Your task to perform on an android device: Clear the shopping cart on ebay.com. Search for bose soundsport free on ebay.com, select the first entry, add it to the cart, then select checkout. Image 0: 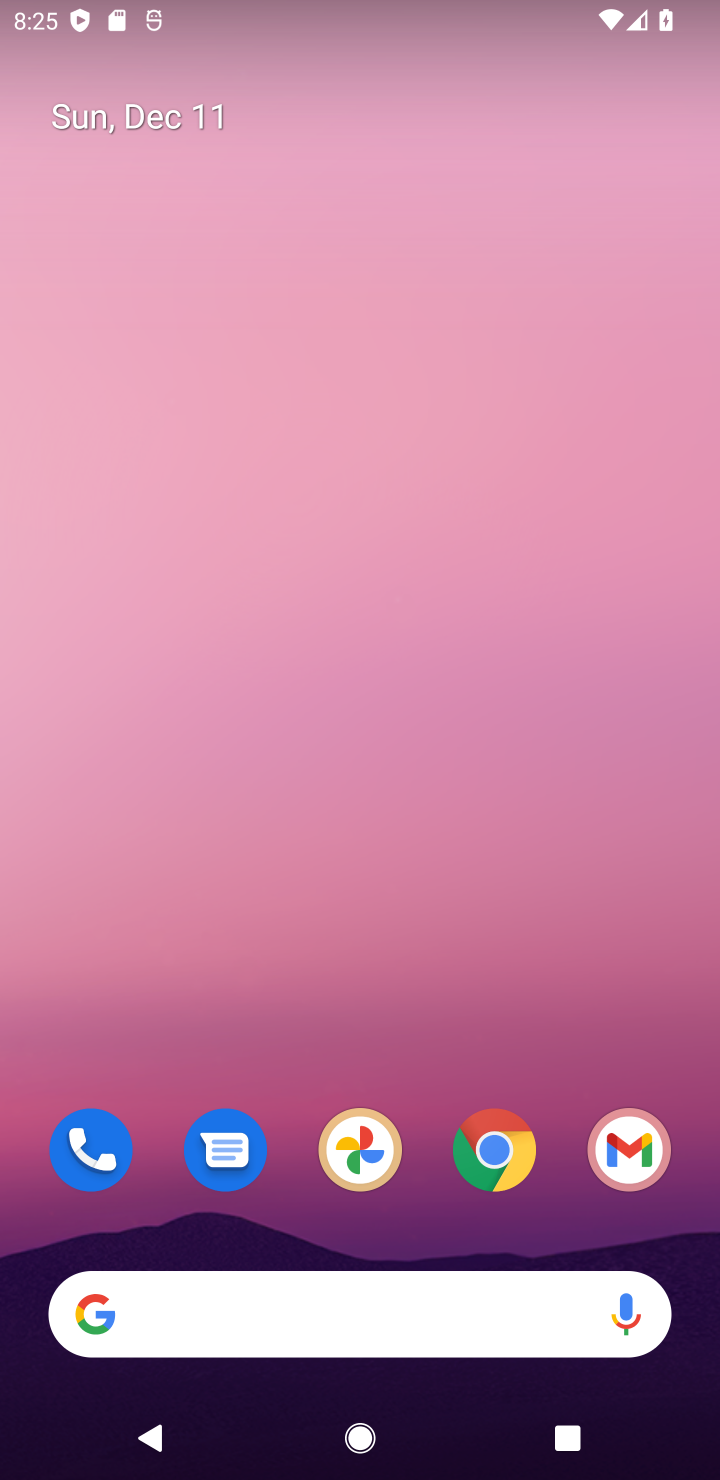
Step 0: click (493, 1148)
Your task to perform on an android device: Clear the shopping cart on ebay.com. Search for bose soundsport free on ebay.com, select the first entry, add it to the cart, then select checkout. Image 1: 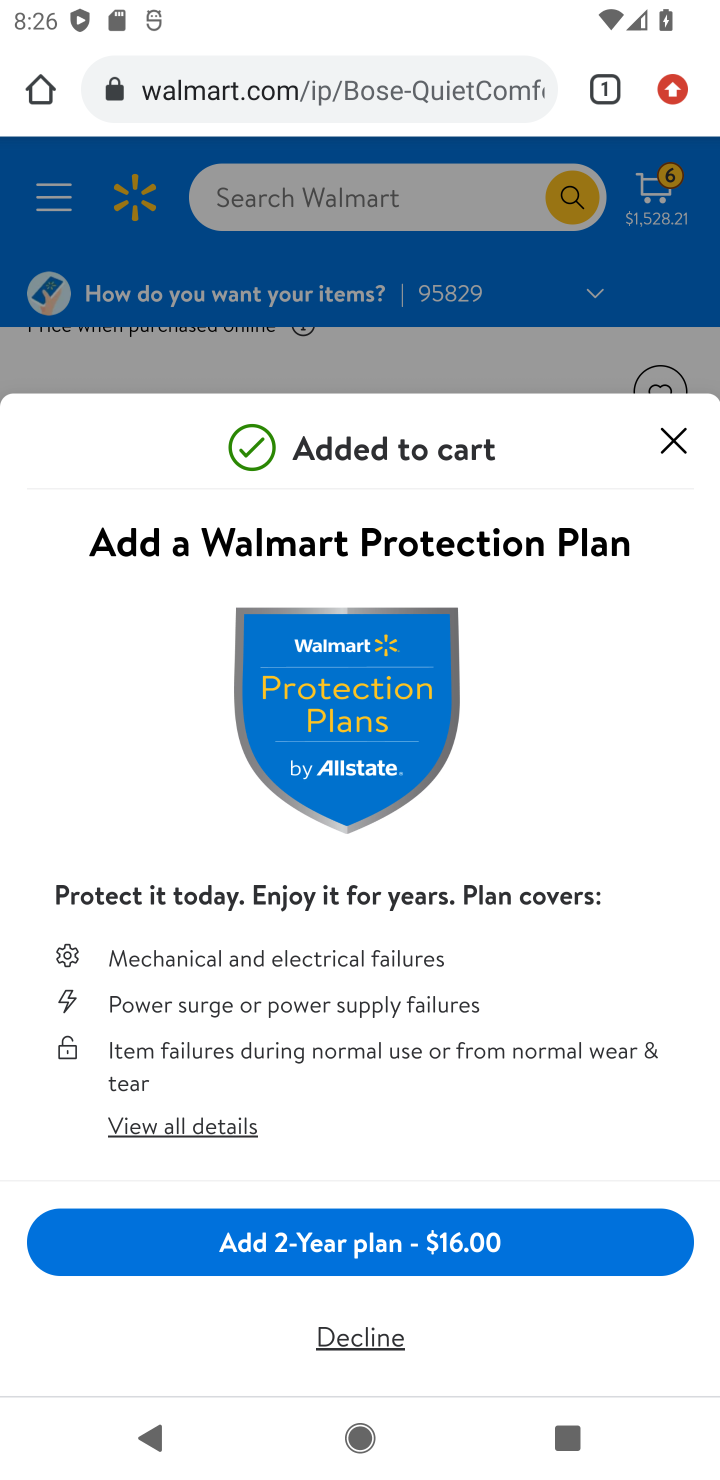
Step 1: click (448, 96)
Your task to perform on an android device: Clear the shopping cart on ebay.com. Search for bose soundsport free on ebay.com, select the first entry, add it to the cart, then select checkout. Image 2: 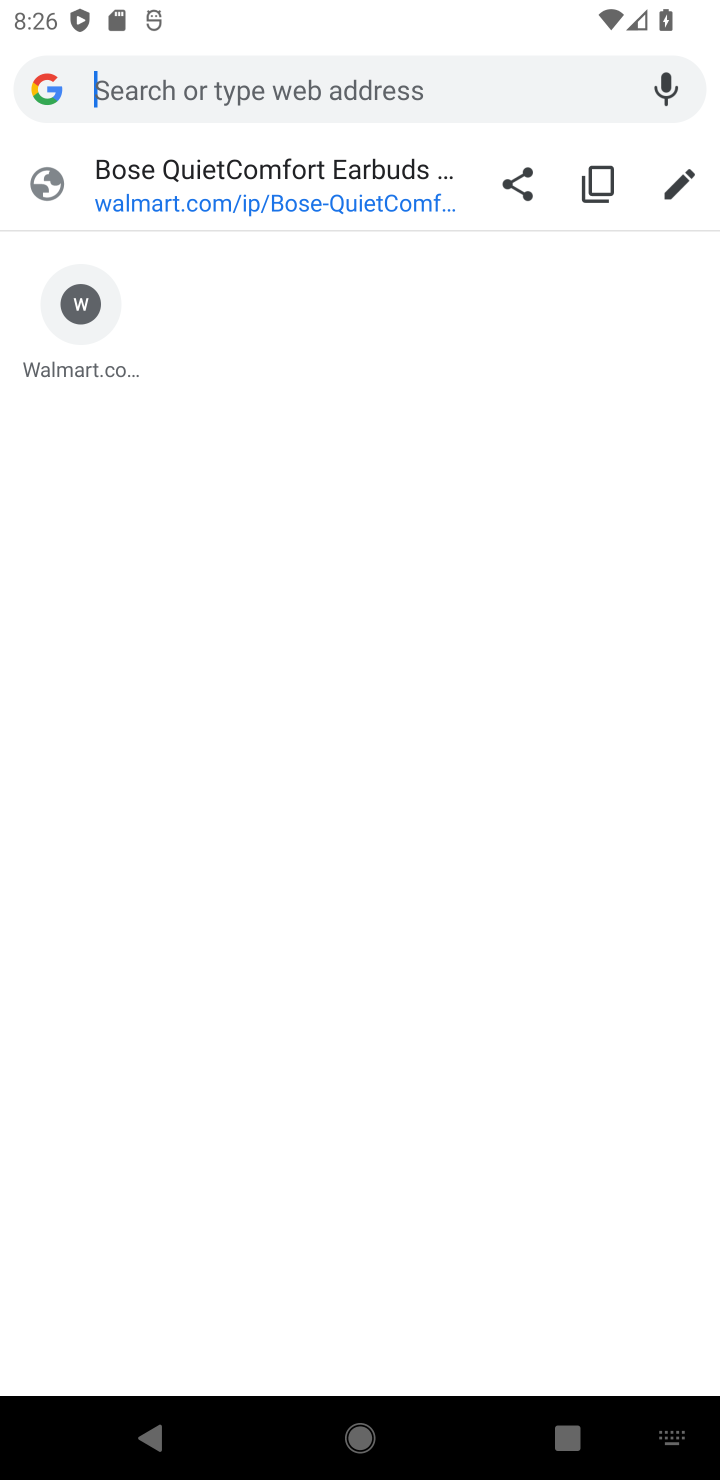
Step 2: type "ebay.com"
Your task to perform on an android device: Clear the shopping cart on ebay.com. Search for bose soundsport free on ebay.com, select the first entry, add it to the cart, then select checkout. Image 3: 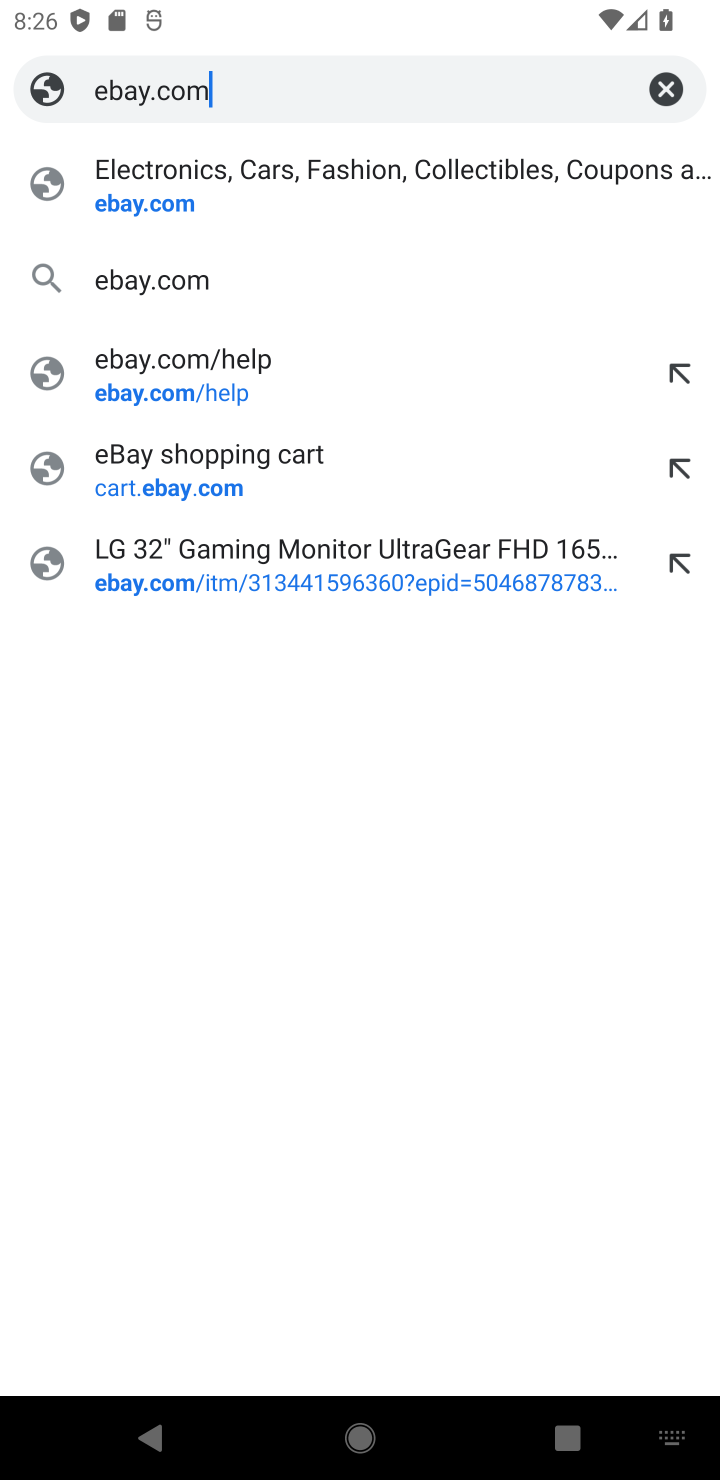
Step 3: click (181, 281)
Your task to perform on an android device: Clear the shopping cart on ebay.com. Search for bose soundsport free on ebay.com, select the first entry, add it to the cart, then select checkout. Image 4: 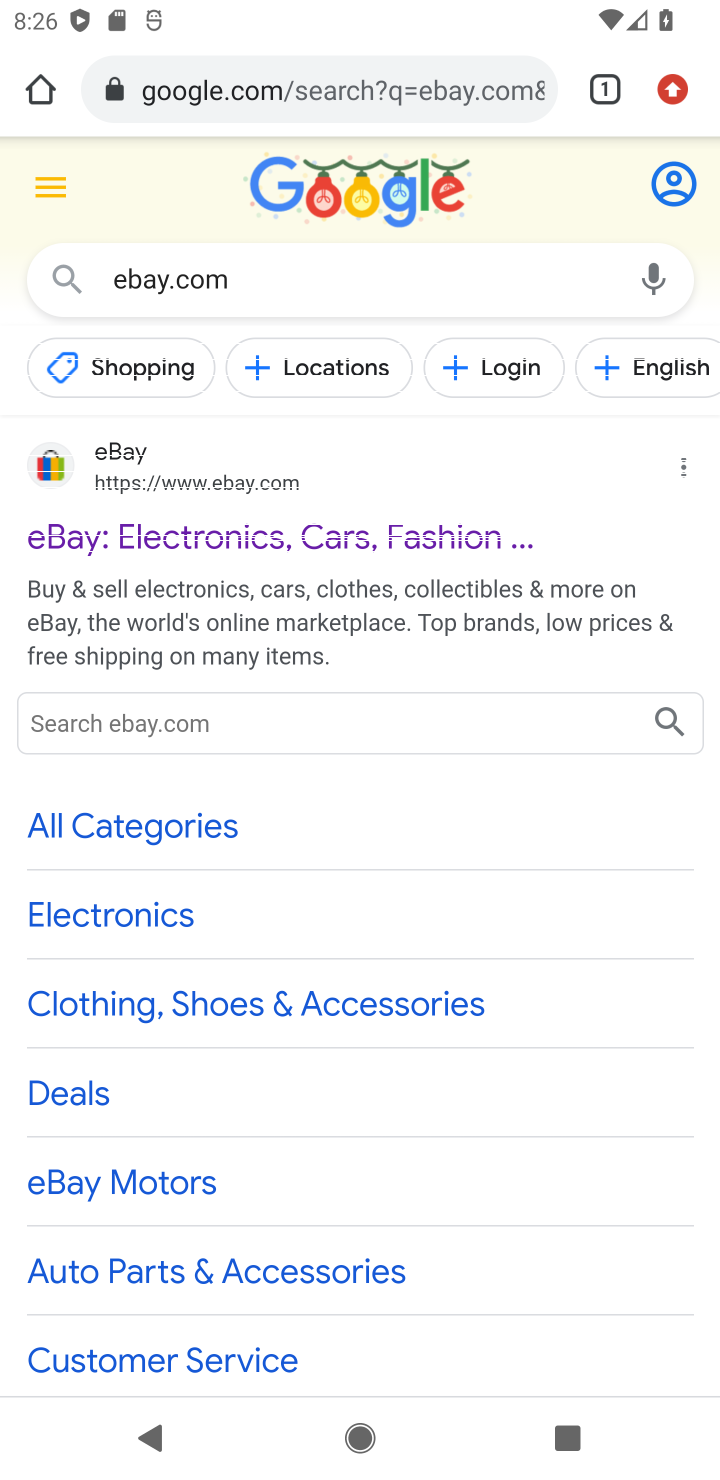
Step 4: click (180, 541)
Your task to perform on an android device: Clear the shopping cart on ebay.com. Search for bose soundsport free on ebay.com, select the first entry, add it to the cart, then select checkout. Image 5: 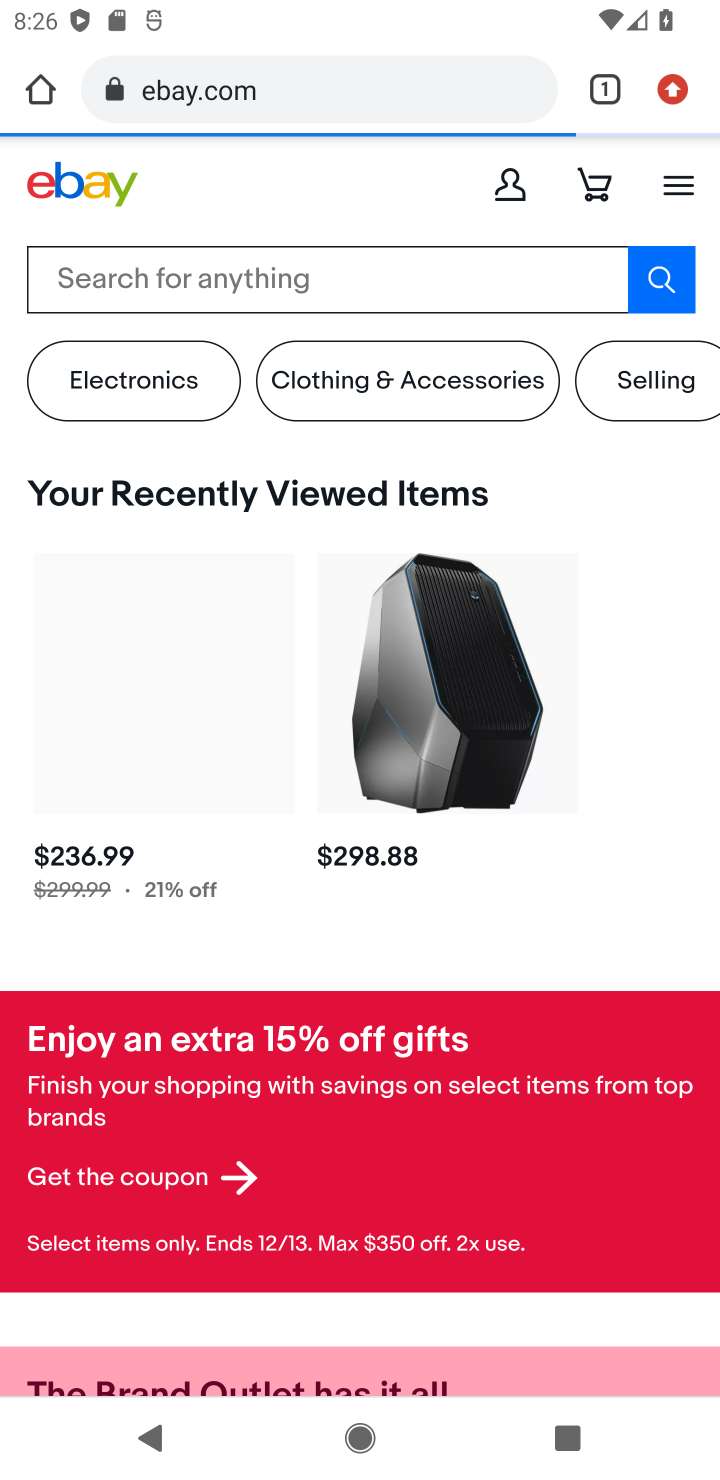
Step 5: click (589, 190)
Your task to perform on an android device: Clear the shopping cart on ebay.com. Search for bose soundsport free on ebay.com, select the first entry, add it to the cart, then select checkout. Image 6: 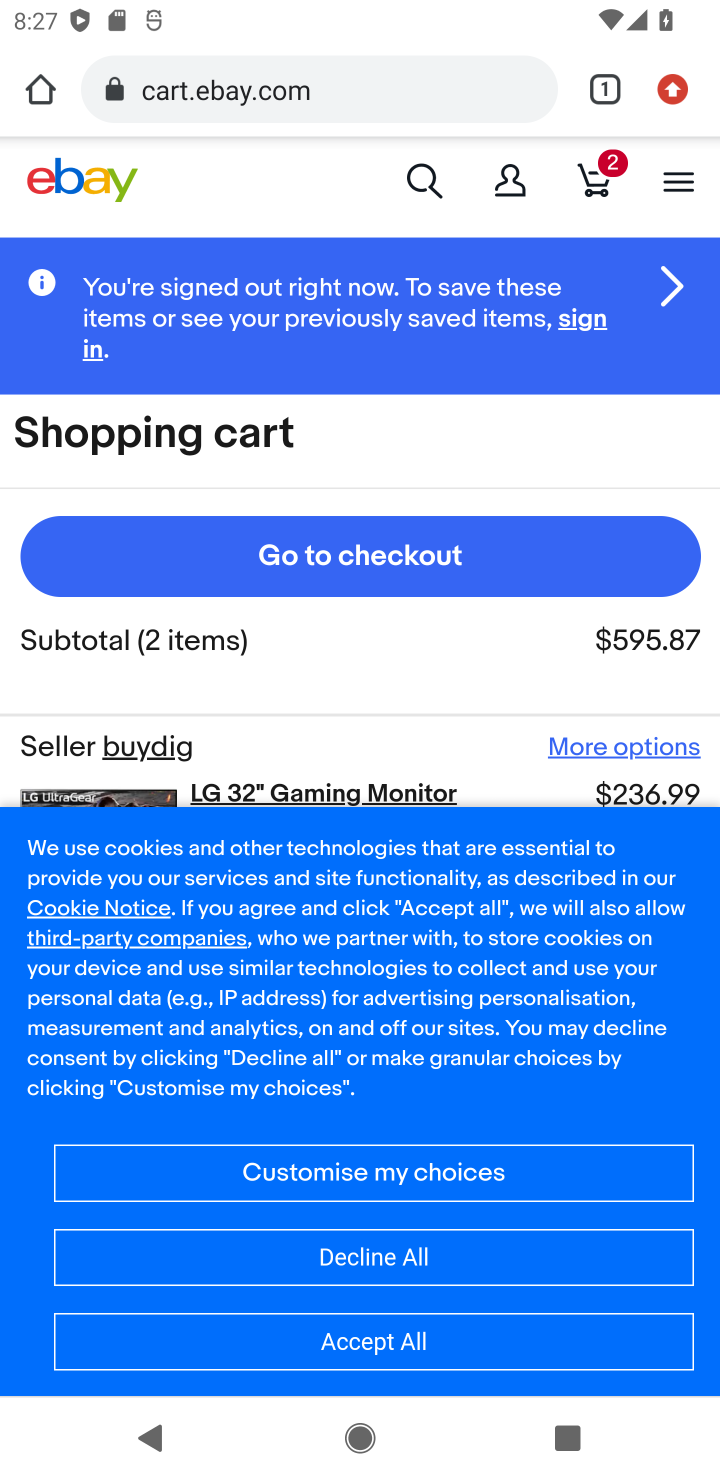
Step 6: click (390, 1337)
Your task to perform on an android device: Clear the shopping cart on ebay.com. Search for bose soundsport free on ebay.com, select the first entry, add it to the cart, then select checkout. Image 7: 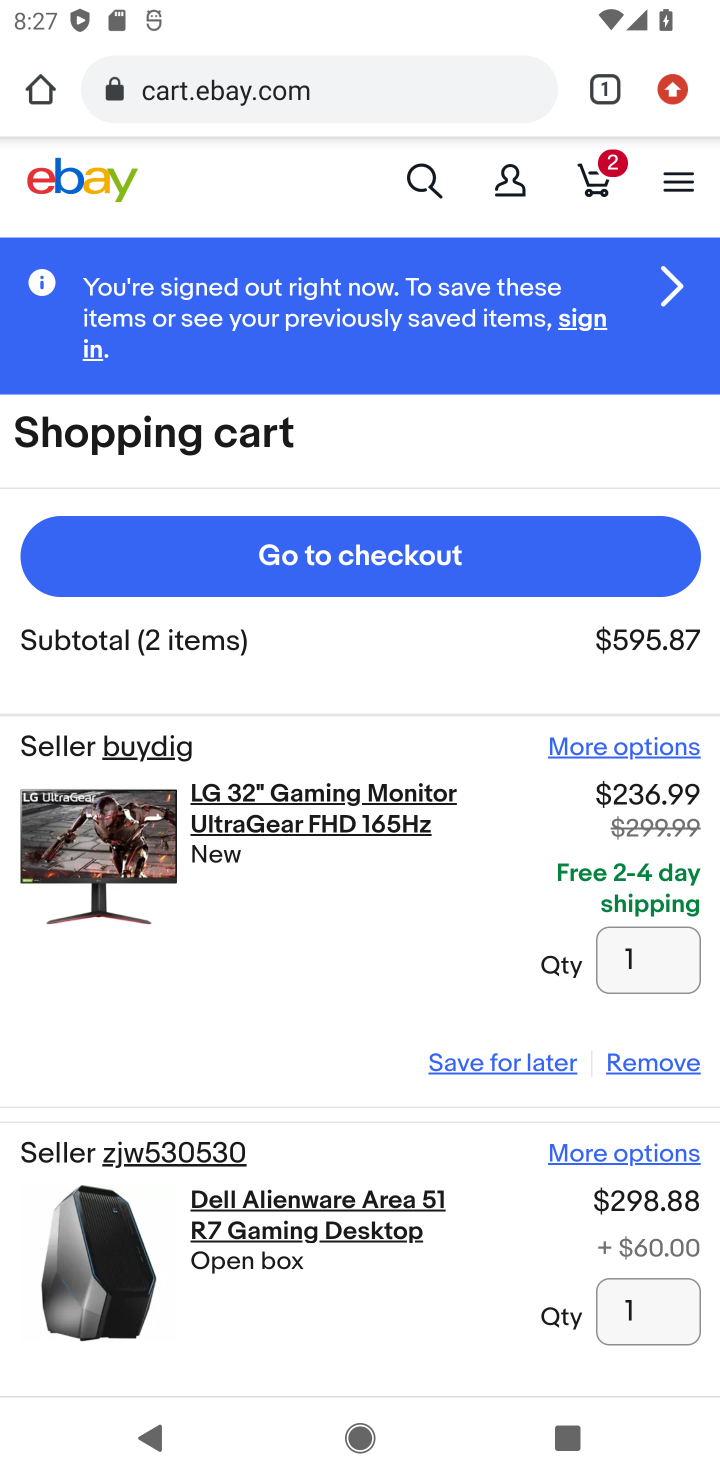
Step 7: click (626, 1065)
Your task to perform on an android device: Clear the shopping cart on ebay.com. Search for bose soundsport free on ebay.com, select the first entry, add it to the cart, then select checkout. Image 8: 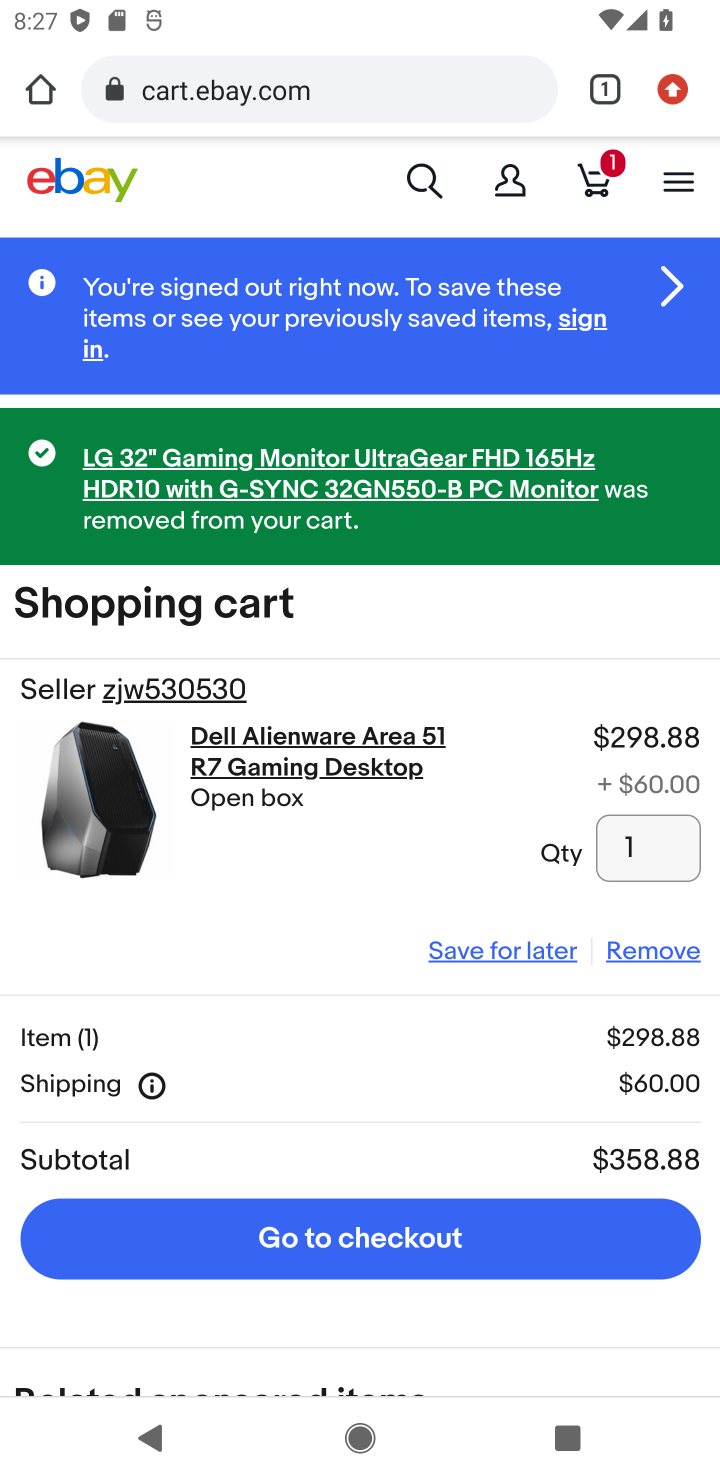
Step 8: click (667, 951)
Your task to perform on an android device: Clear the shopping cart on ebay.com. Search for bose soundsport free on ebay.com, select the first entry, add it to the cart, then select checkout. Image 9: 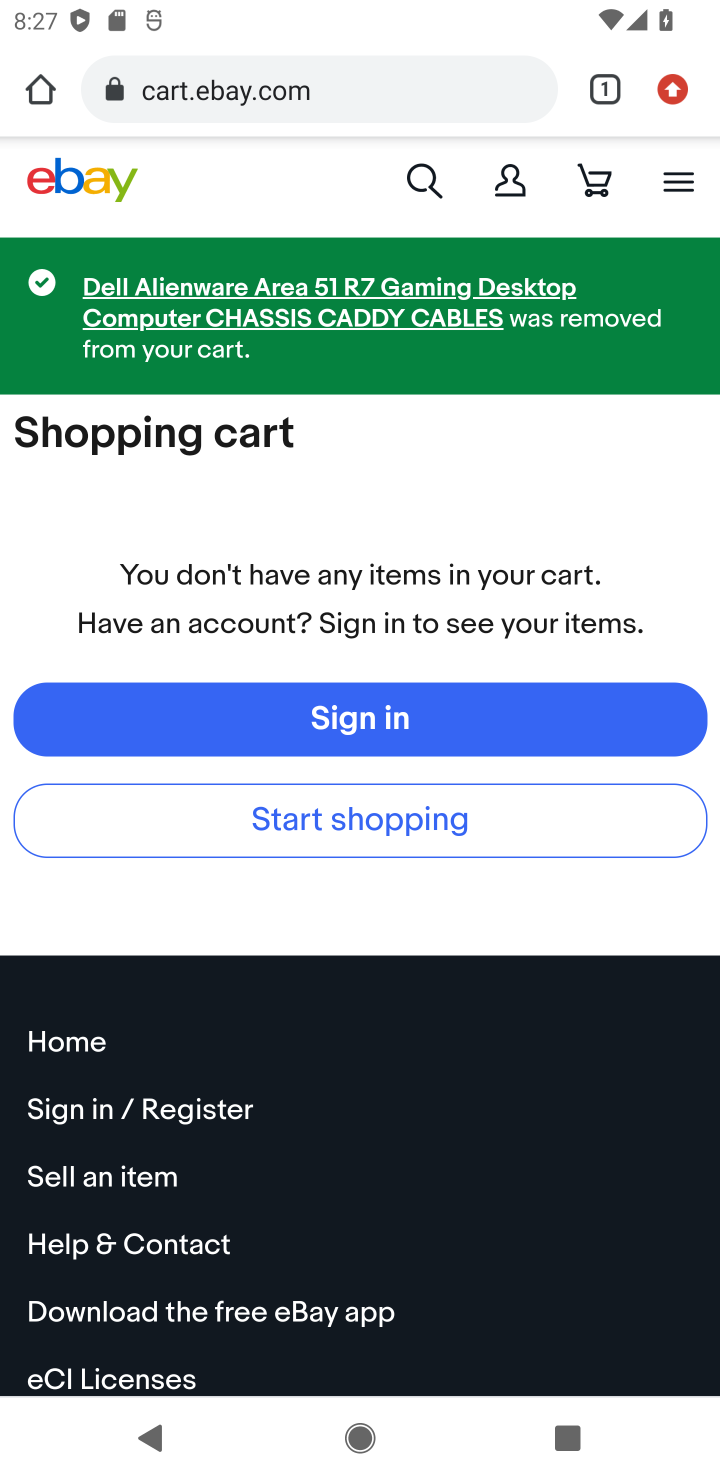
Step 9: click (418, 181)
Your task to perform on an android device: Clear the shopping cart on ebay.com. Search for bose soundsport free on ebay.com, select the first entry, add it to the cart, then select checkout. Image 10: 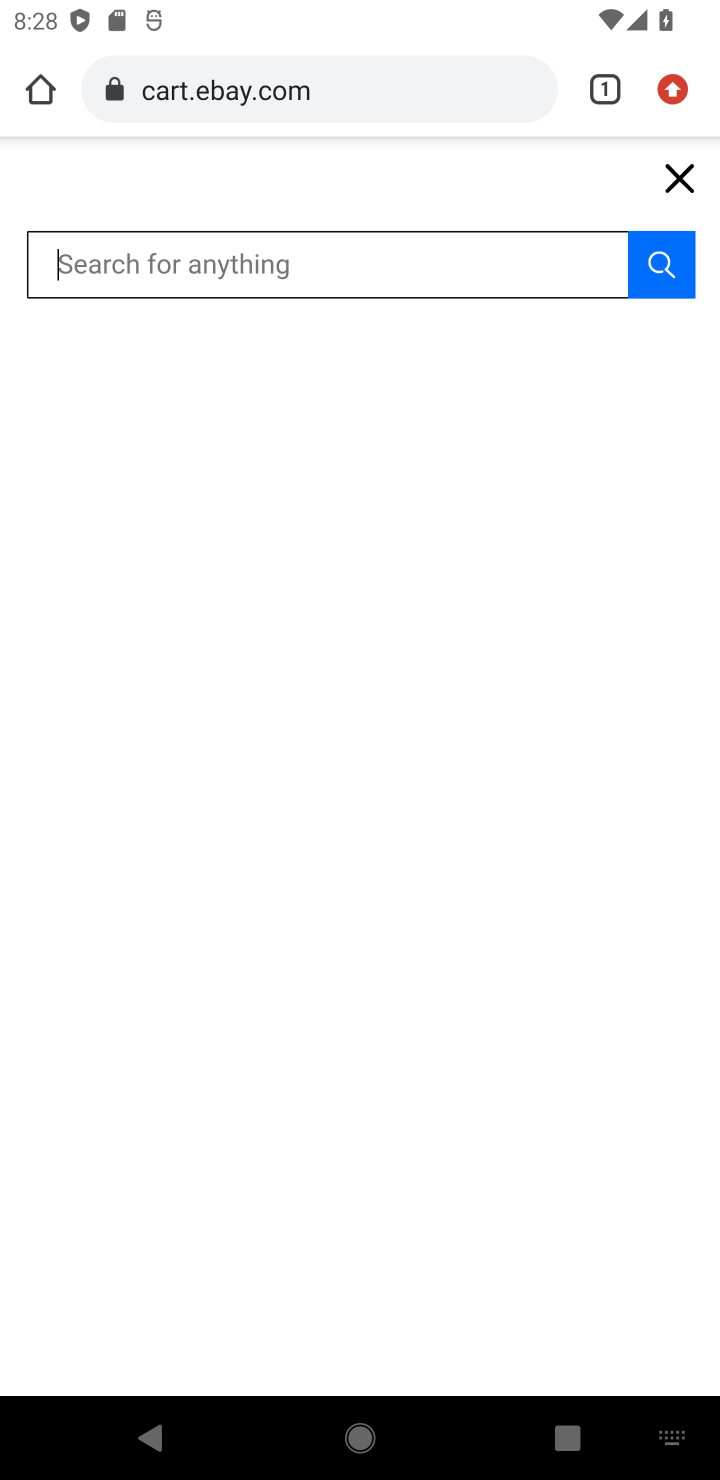
Step 10: type "bose soundsport free"
Your task to perform on an android device: Clear the shopping cart on ebay.com. Search for bose soundsport free on ebay.com, select the first entry, add it to the cart, then select checkout. Image 11: 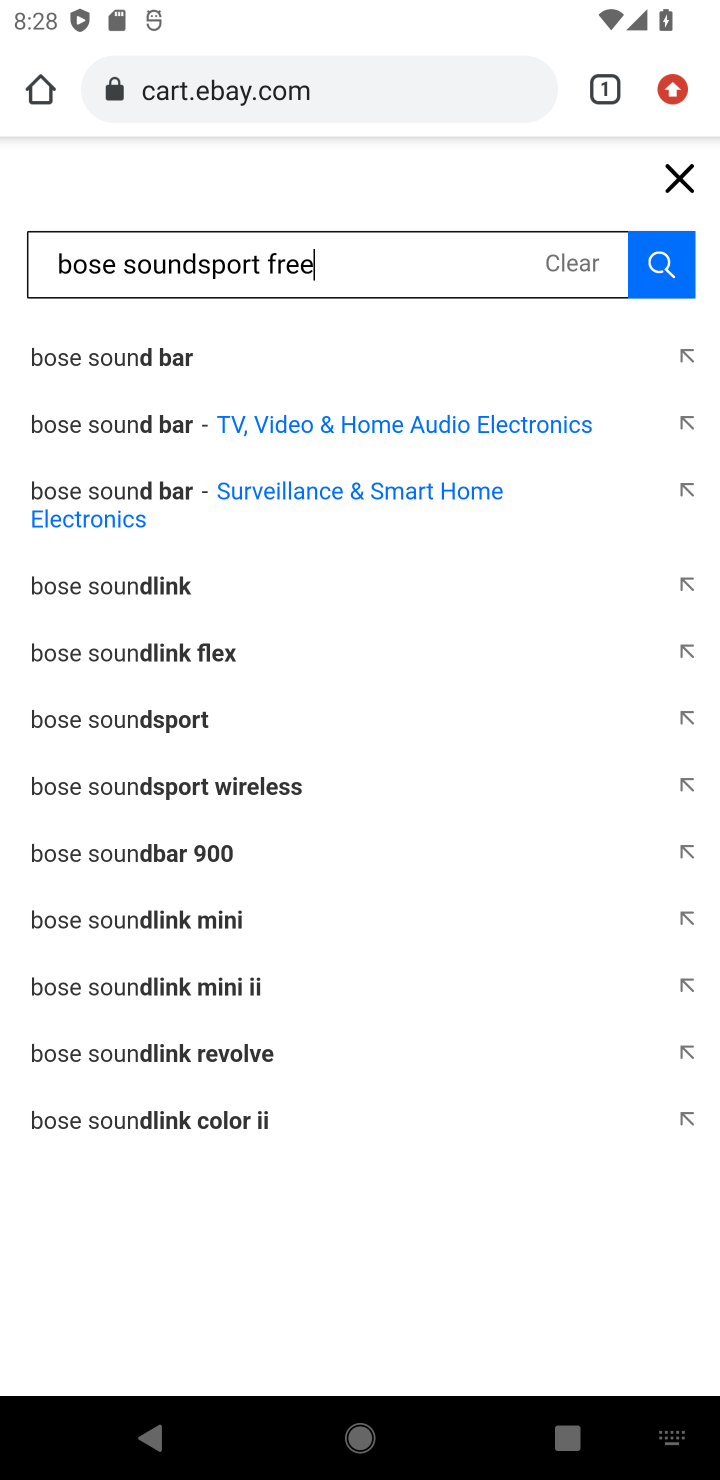
Step 11: click (660, 259)
Your task to perform on an android device: Clear the shopping cart on ebay.com. Search for bose soundsport free on ebay.com, select the first entry, add it to the cart, then select checkout. Image 12: 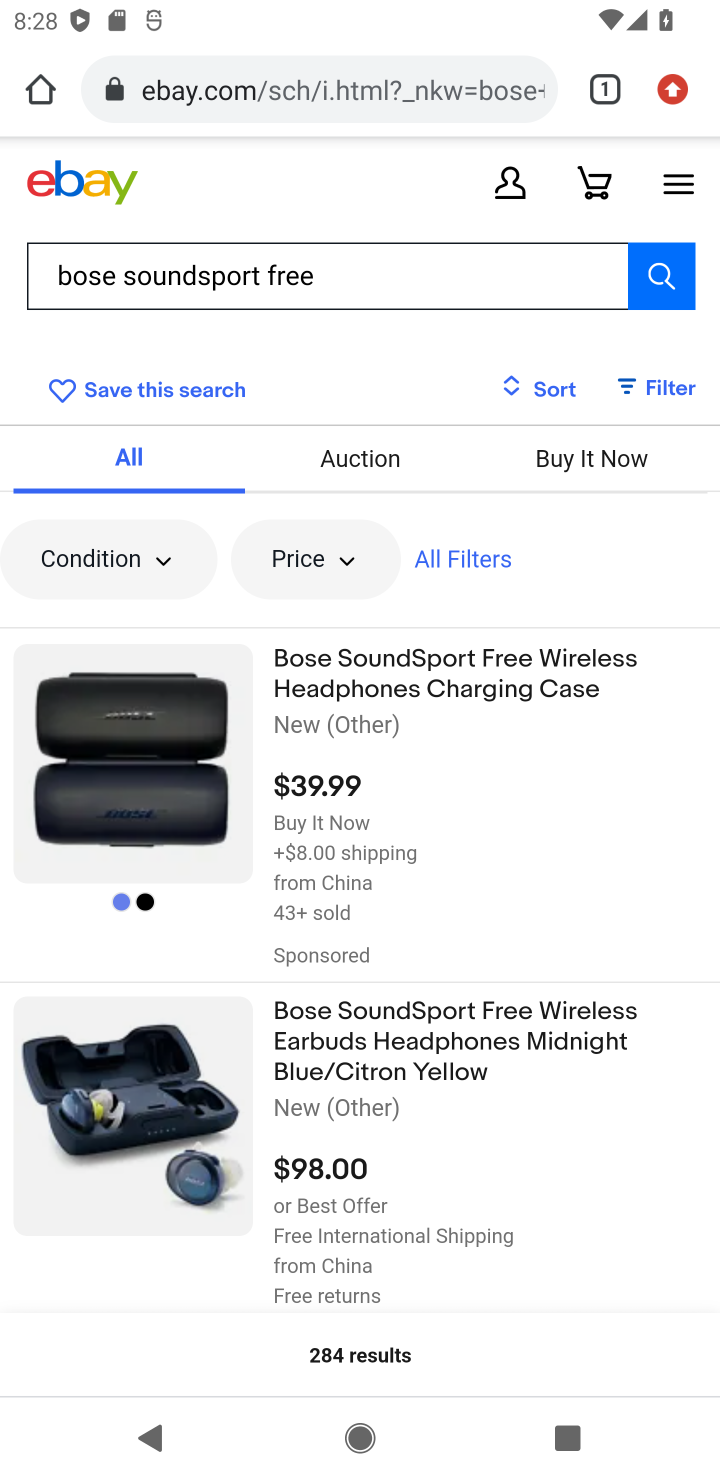
Step 12: click (547, 692)
Your task to perform on an android device: Clear the shopping cart on ebay.com. Search for bose soundsport free on ebay.com, select the first entry, add it to the cart, then select checkout. Image 13: 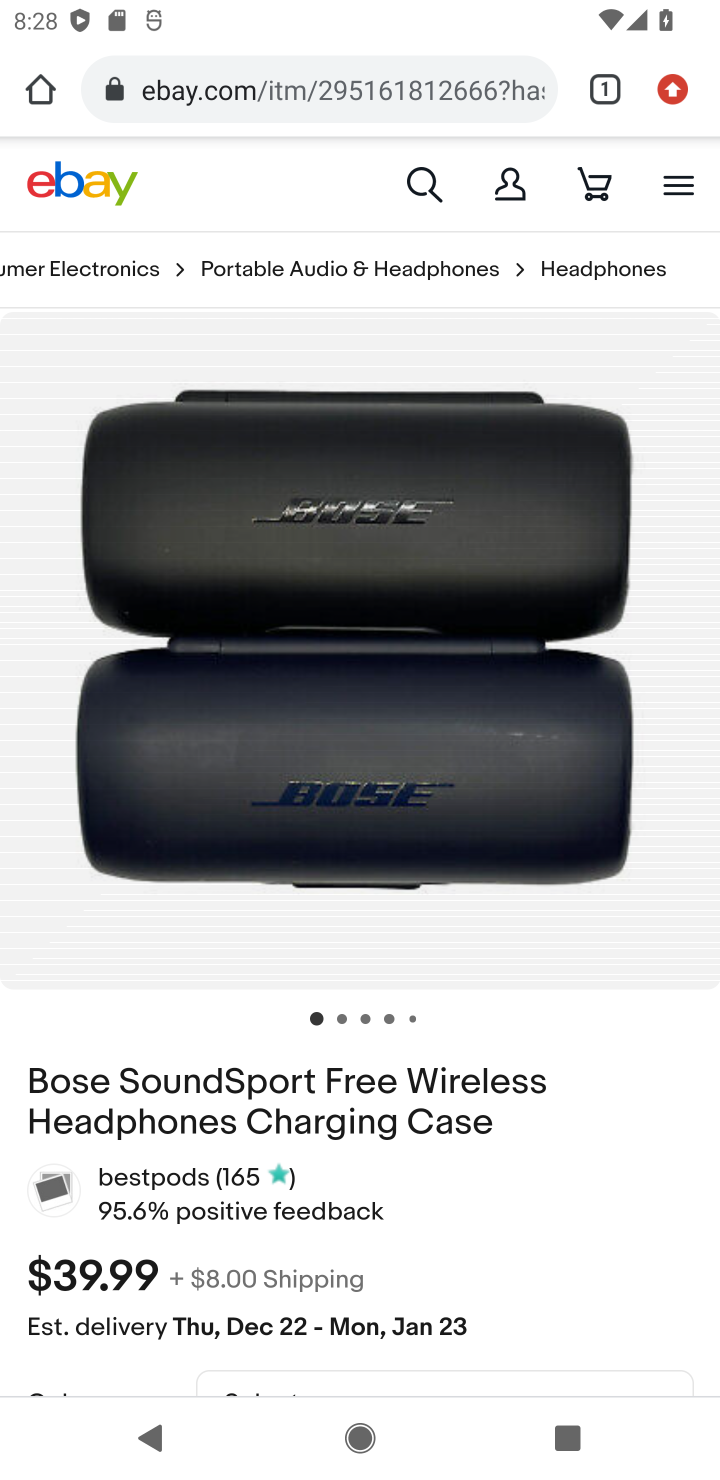
Step 13: drag from (512, 1205) to (545, 738)
Your task to perform on an android device: Clear the shopping cart on ebay.com. Search for bose soundsport free on ebay.com, select the first entry, add it to the cart, then select checkout. Image 14: 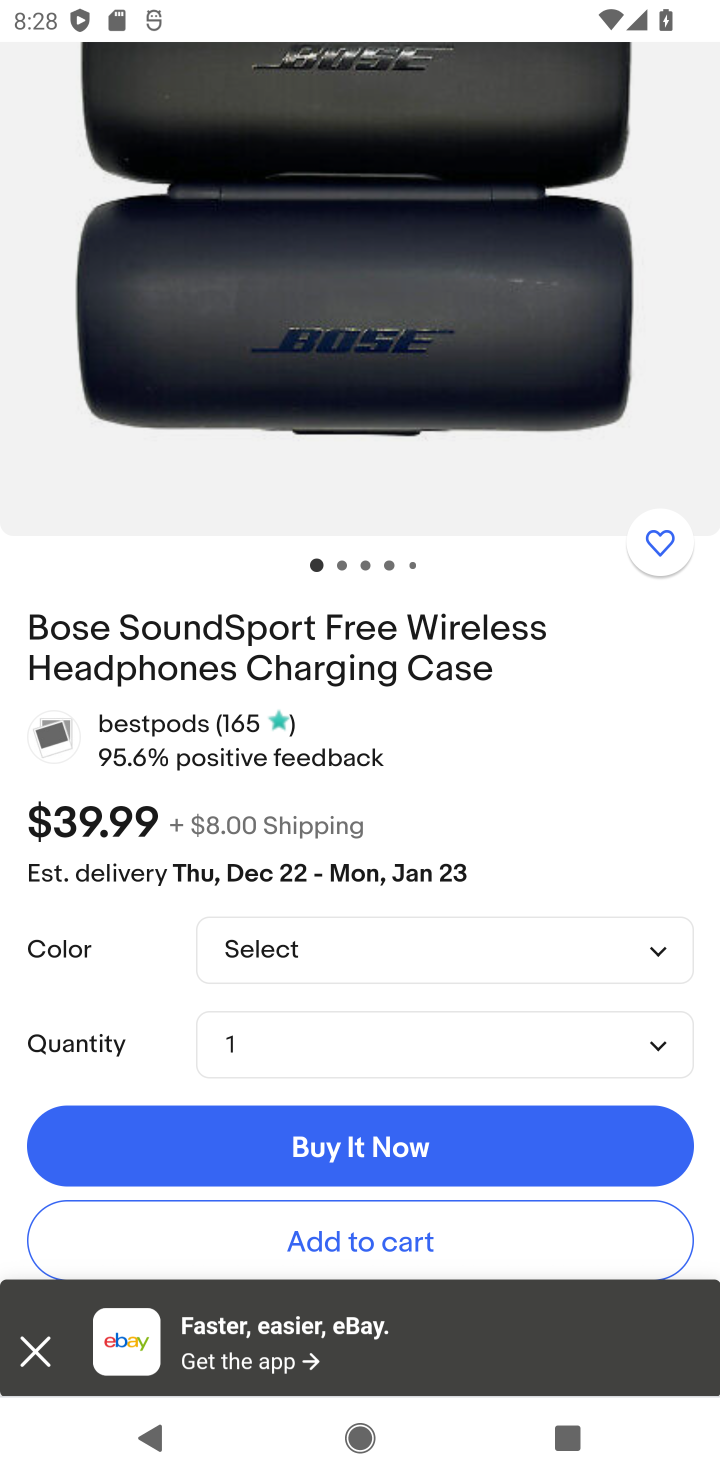
Step 14: click (384, 1235)
Your task to perform on an android device: Clear the shopping cart on ebay.com. Search for bose soundsport free on ebay.com, select the first entry, add it to the cart, then select checkout. Image 15: 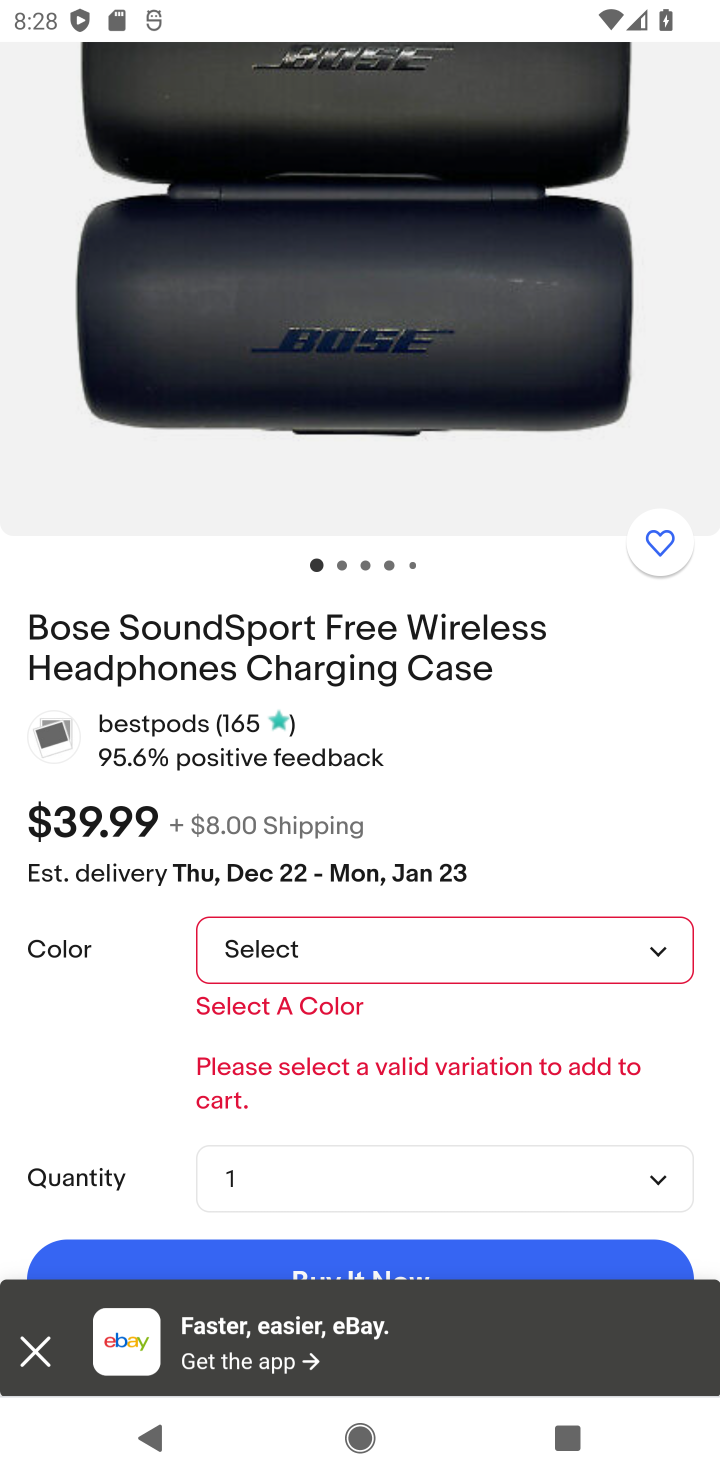
Step 15: click (655, 943)
Your task to perform on an android device: Clear the shopping cart on ebay.com. Search for bose soundsport free on ebay.com, select the first entry, add it to the cart, then select checkout. Image 16: 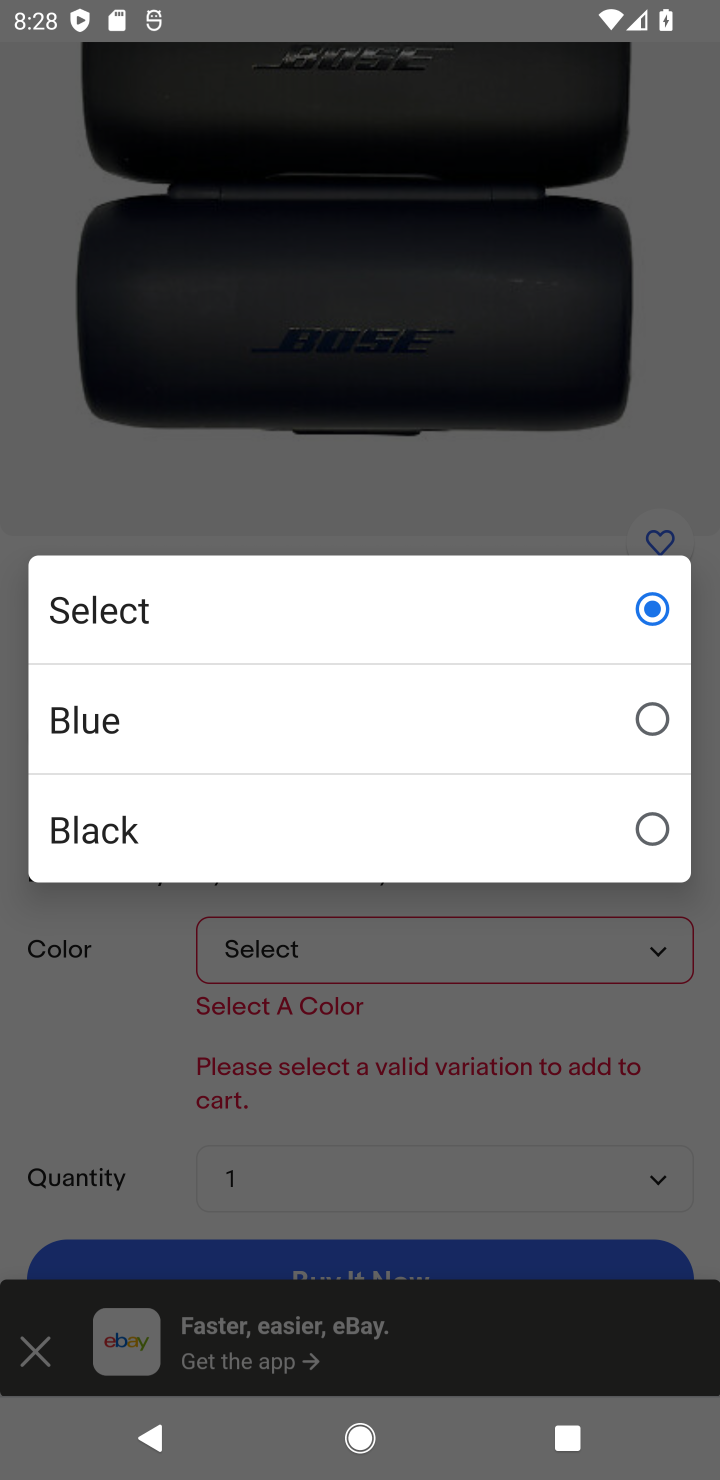
Step 16: click (641, 730)
Your task to perform on an android device: Clear the shopping cart on ebay.com. Search for bose soundsport free on ebay.com, select the first entry, add it to the cart, then select checkout. Image 17: 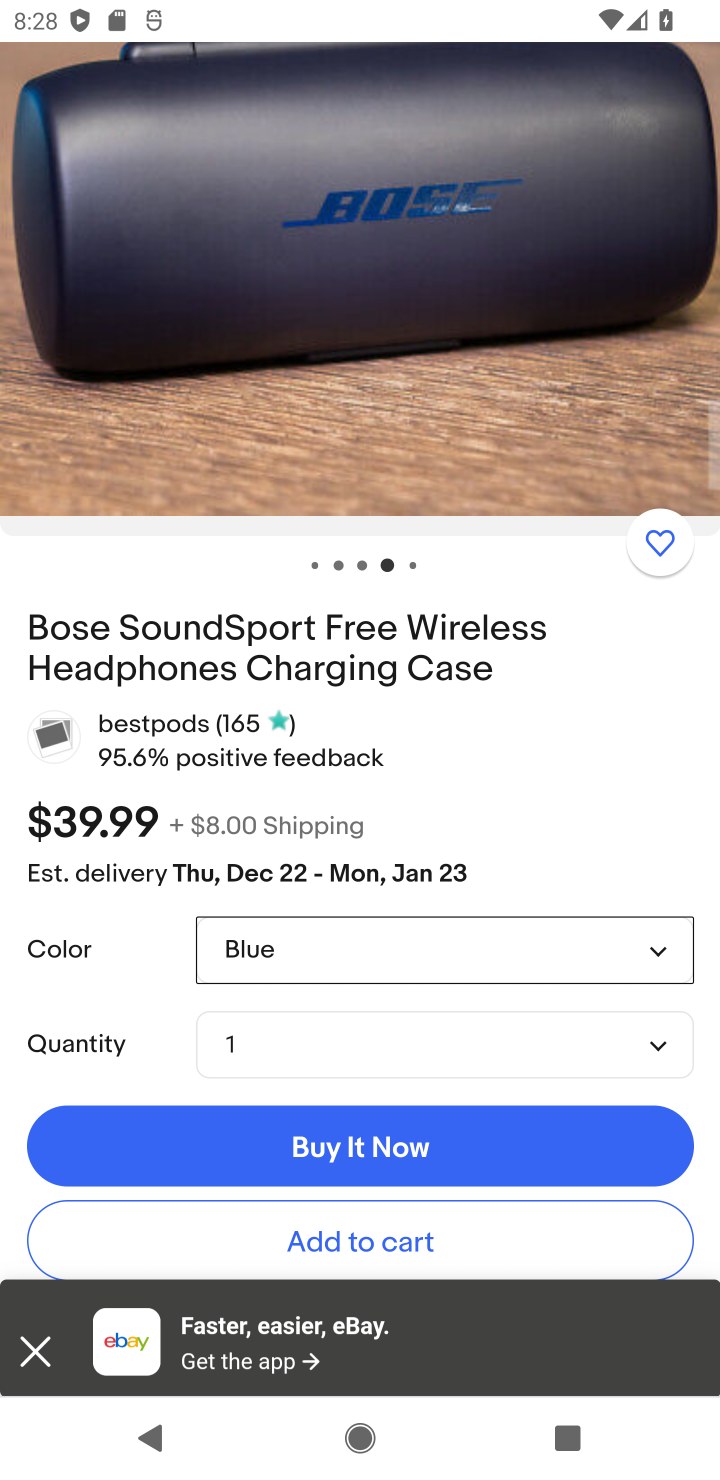
Step 17: click (427, 1238)
Your task to perform on an android device: Clear the shopping cart on ebay.com. Search for bose soundsport free on ebay.com, select the first entry, add it to the cart, then select checkout. Image 18: 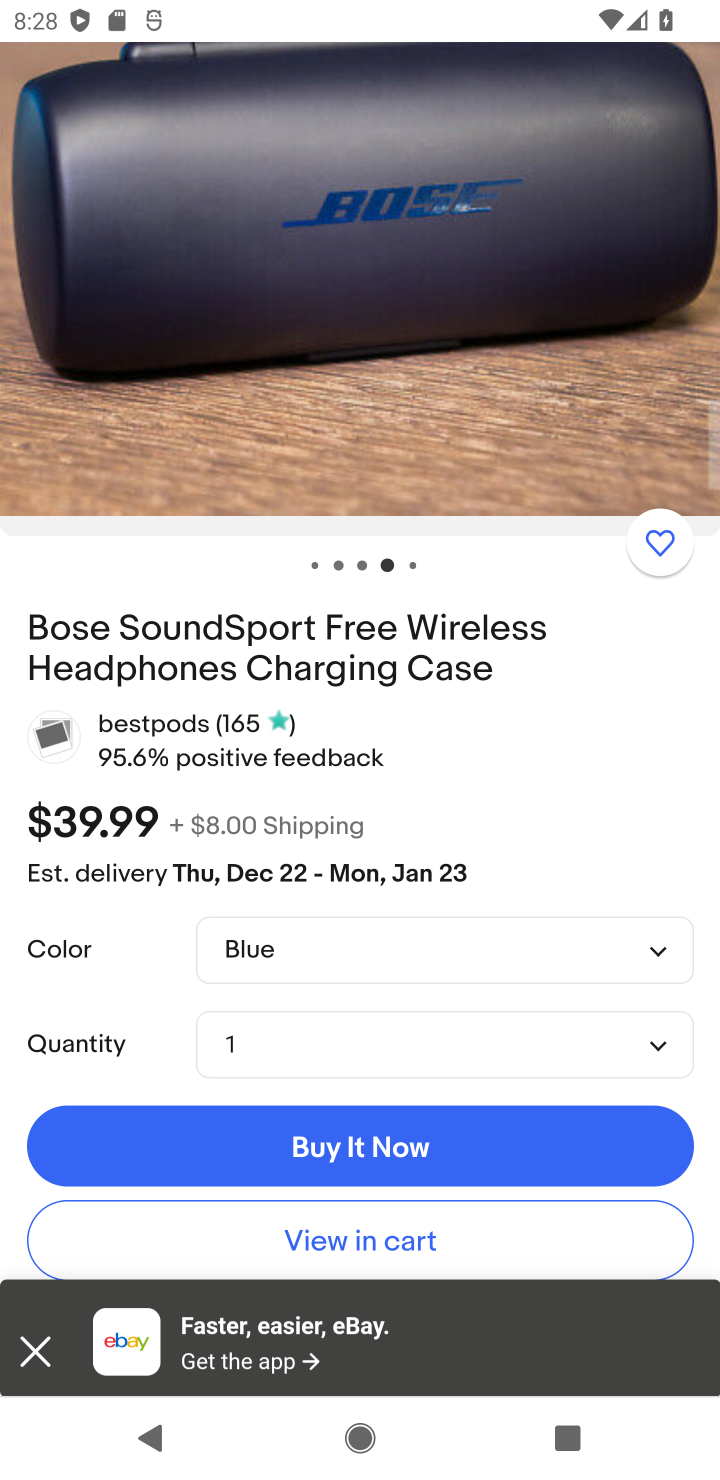
Step 18: click (427, 1238)
Your task to perform on an android device: Clear the shopping cart on ebay.com. Search for bose soundsport free on ebay.com, select the first entry, add it to the cart, then select checkout. Image 19: 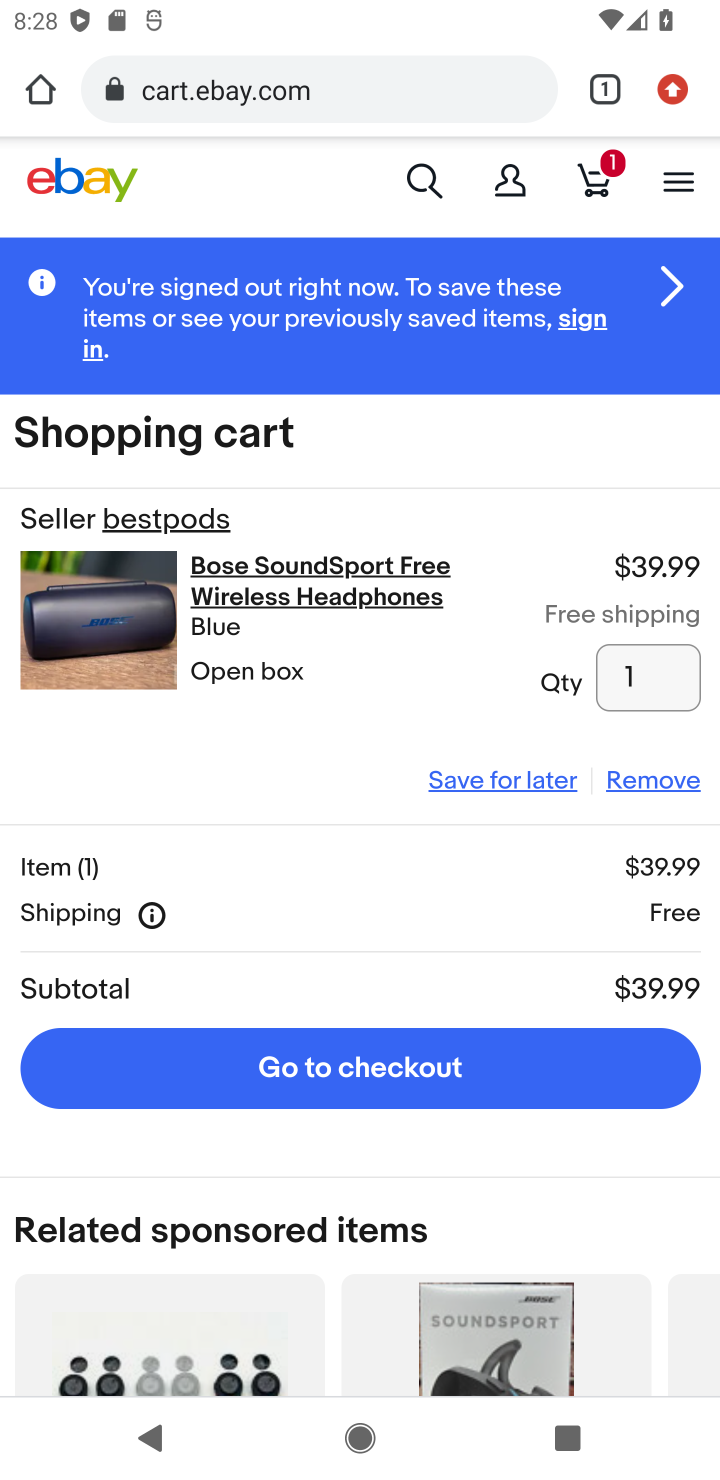
Step 19: click (445, 1081)
Your task to perform on an android device: Clear the shopping cart on ebay.com. Search for bose soundsport free on ebay.com, select the first entry, add it to the cart, then select checkout. Image 20: 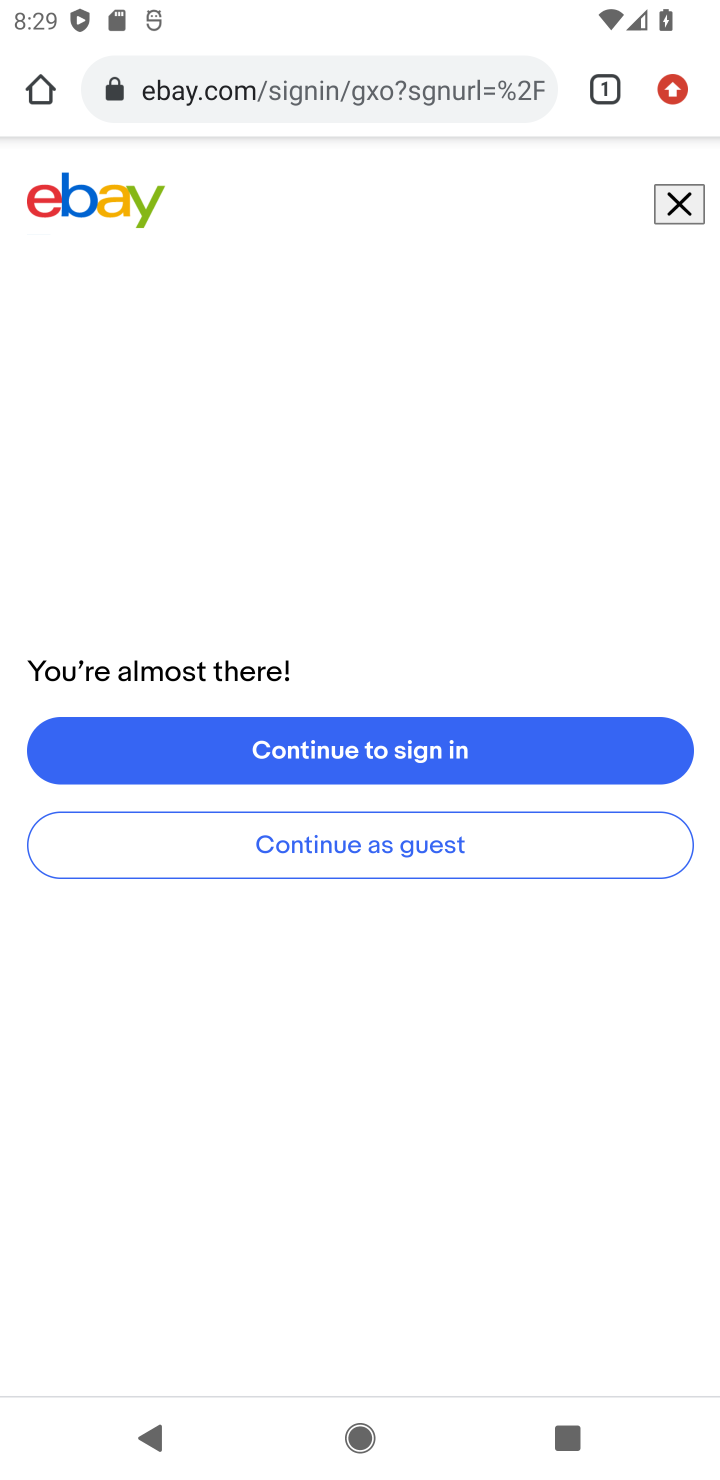
Step 20: task complete